Your task to perform on an android device: turn off airplane mode Image 0: 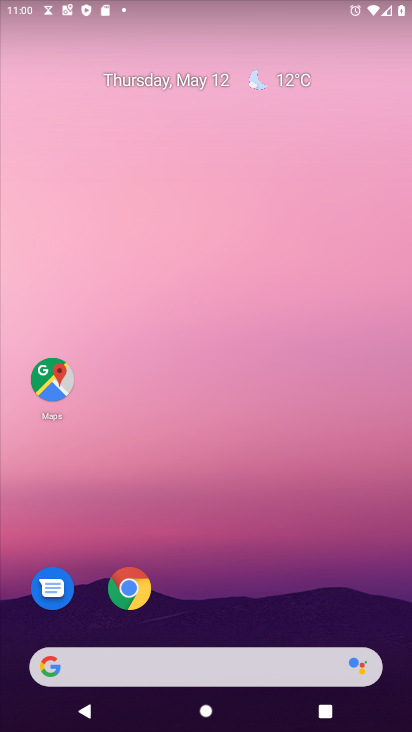
Step 0: drag from (234, 573) to (174, 155)
Your task to perform on an android device: turn off airplane mode Image 1: 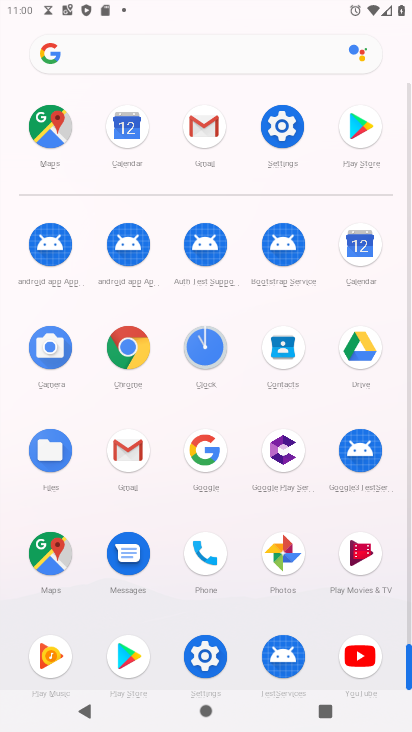
Step 1: click (207, 654)
Your task to perform on an android device: turn off airplane mode Image 2: 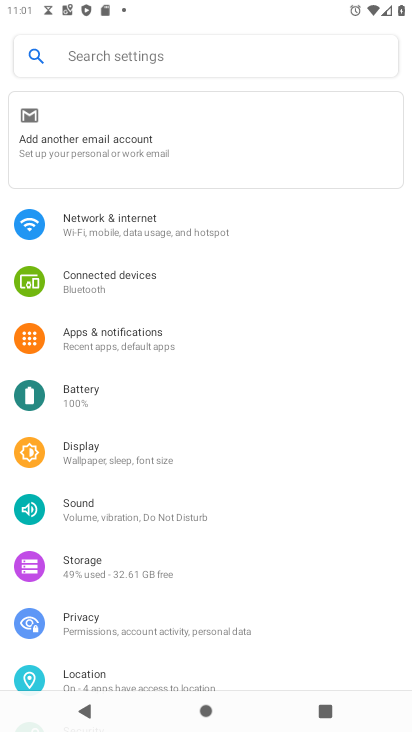
Step 2: click (136, 233)
Your task to perform on an android device: turn off airplane mode Image 3: 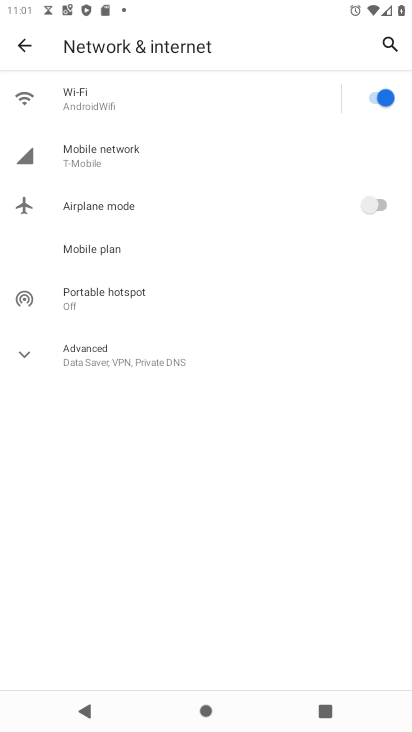
Step 3: task complete